Your task to perform on an android device: open app "Walmart Shopping & Grocery" Image 0: 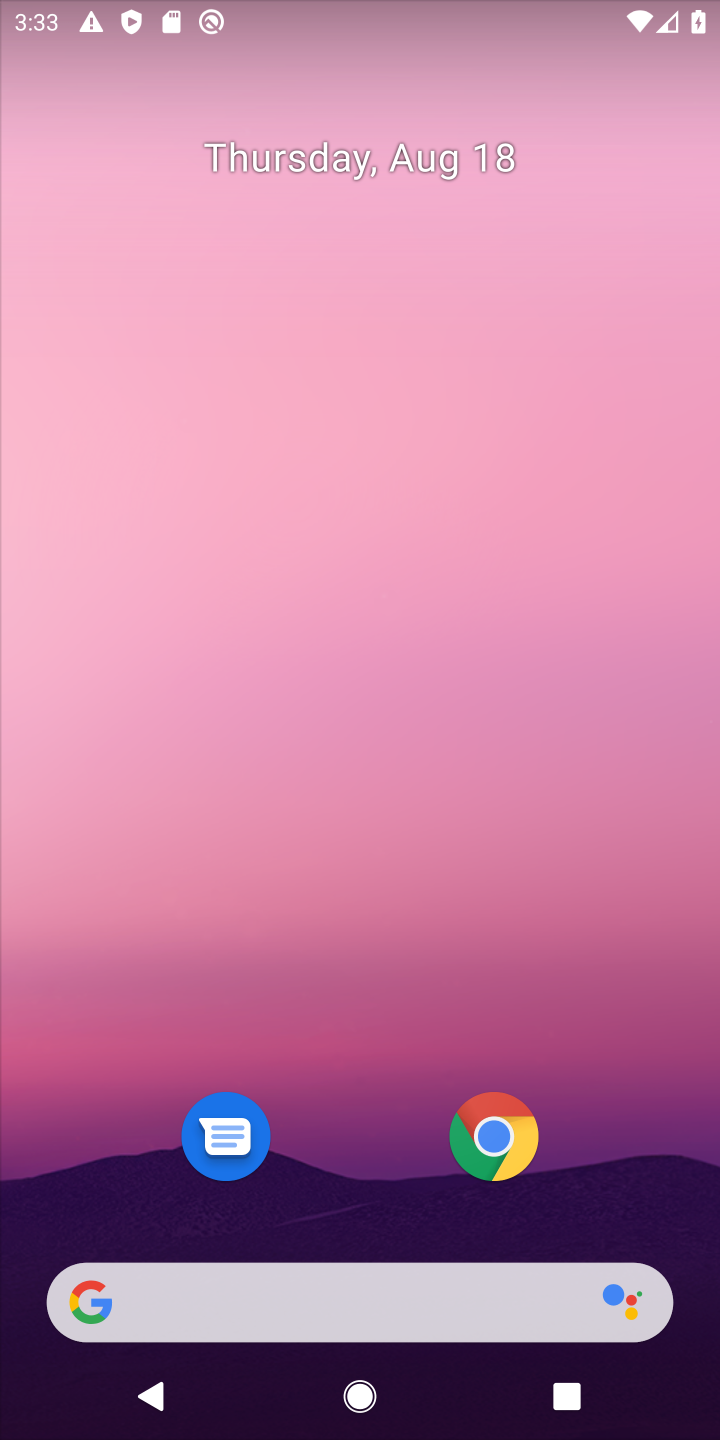
Step 0: drag from (336, 1225) to (485, 62)
Your task to perform on an android device: open app "Walmart Shopping & Grocery" Image 1: 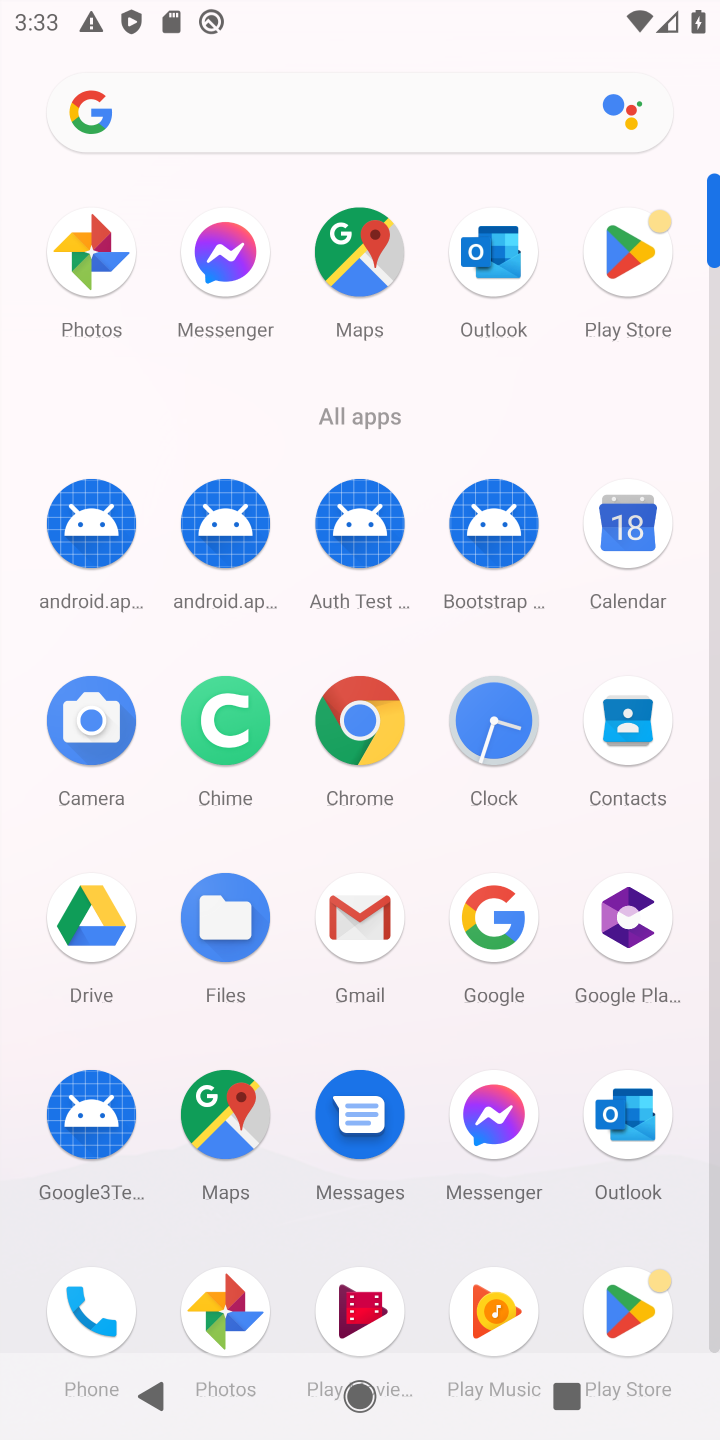
Step 1: click (628, 1301)
Your task to perform on an android device: open app "Walmart Shopping & Grocery" Image 2: 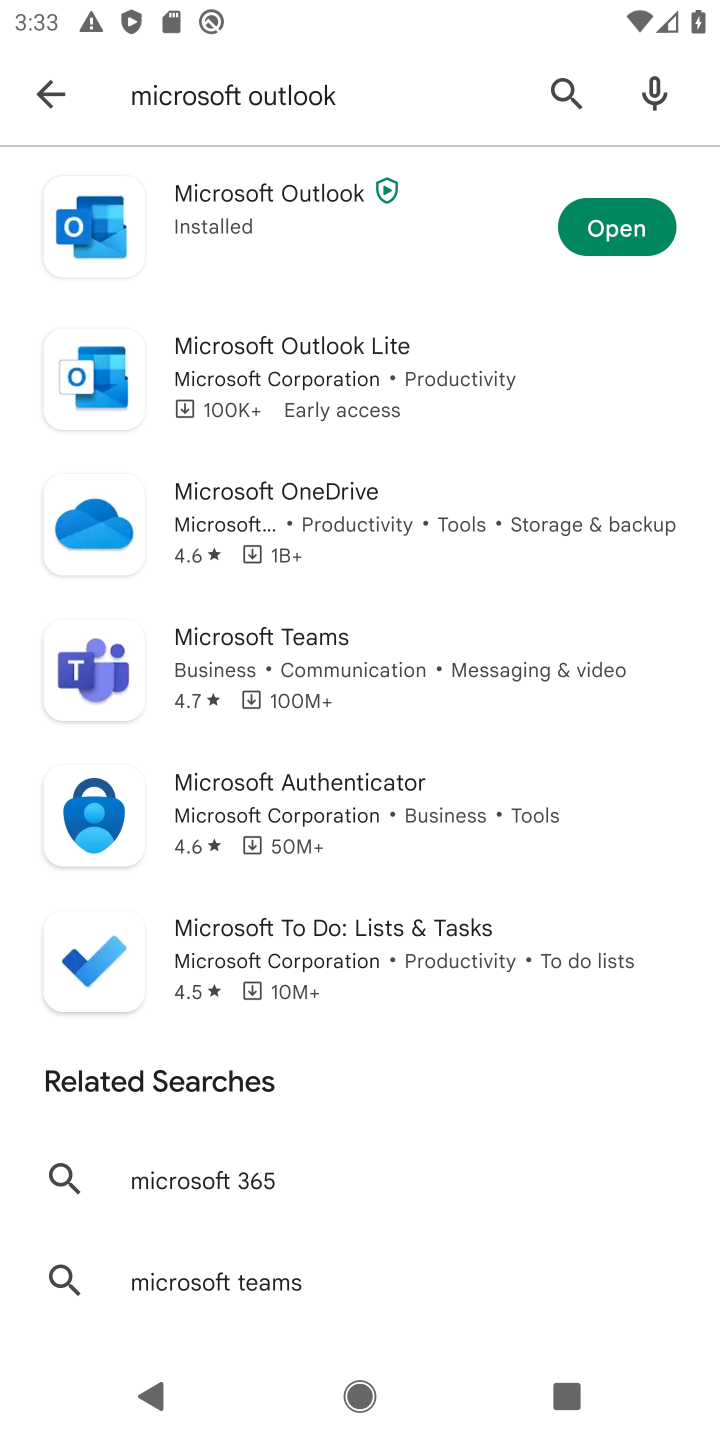
Step 2: click (301, 87)
Your task to perform on an android device: open app "Walmart Shopping & Grocery" Image 3: 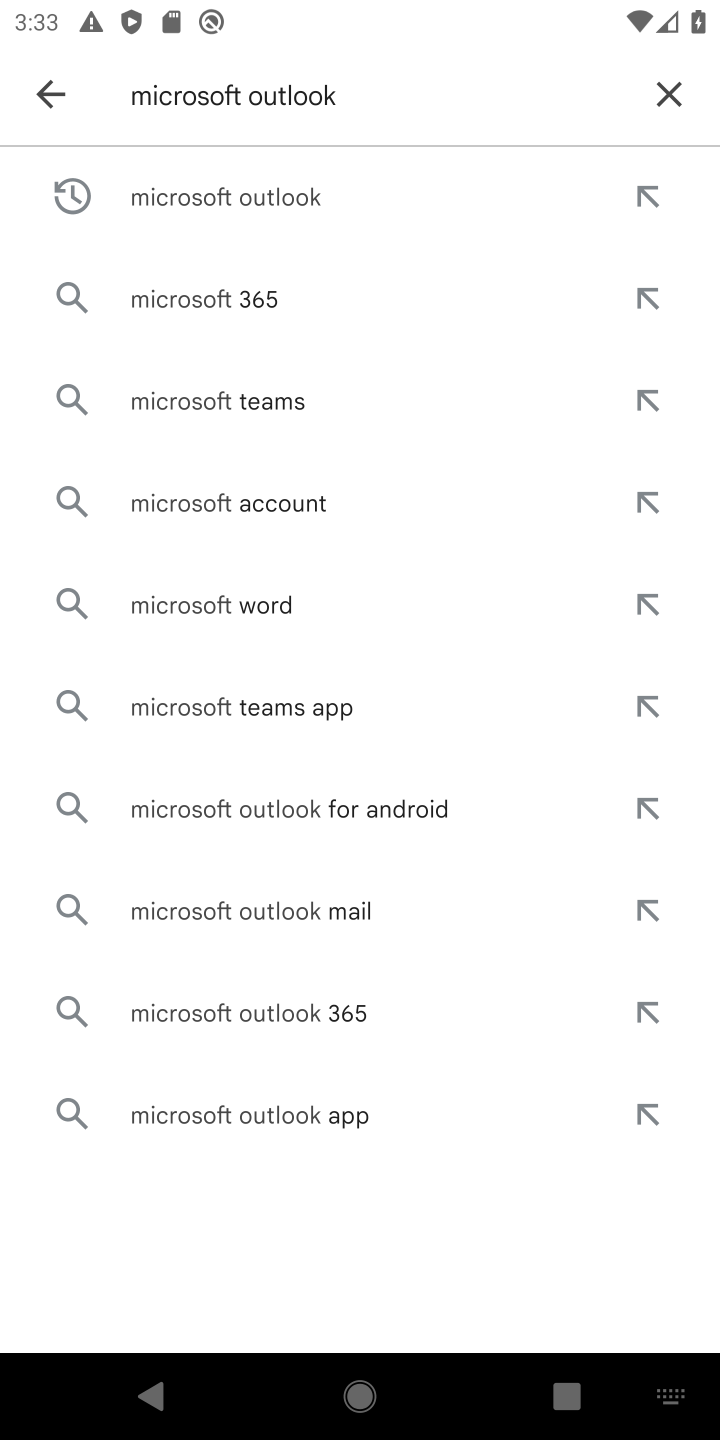
Step 3: click (677, 93)
Your task to perform on an android device: open app "Walmart Shopping & Grocery" Image 4: 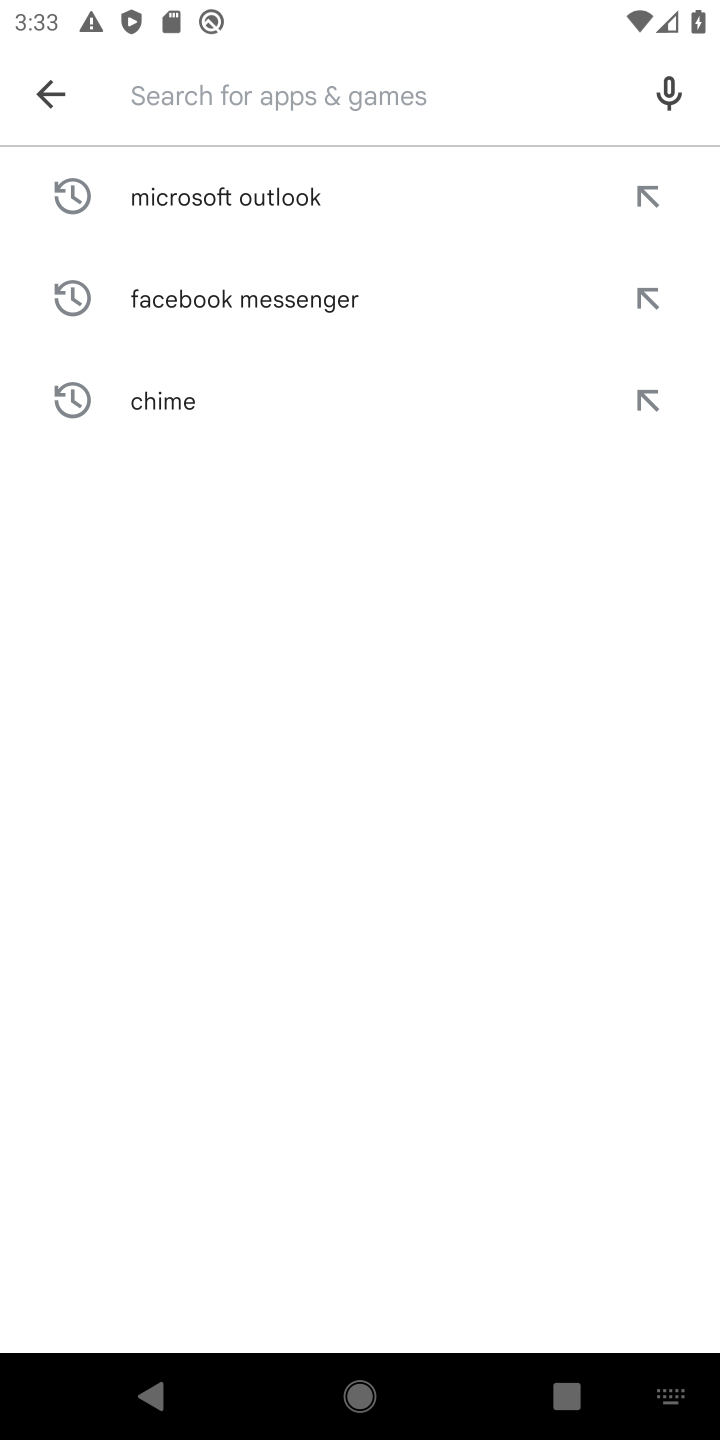
Step 4: type "walmart"
Your task to perform on an android device: open app "Walmart Shopping & Grocery" Image 5: 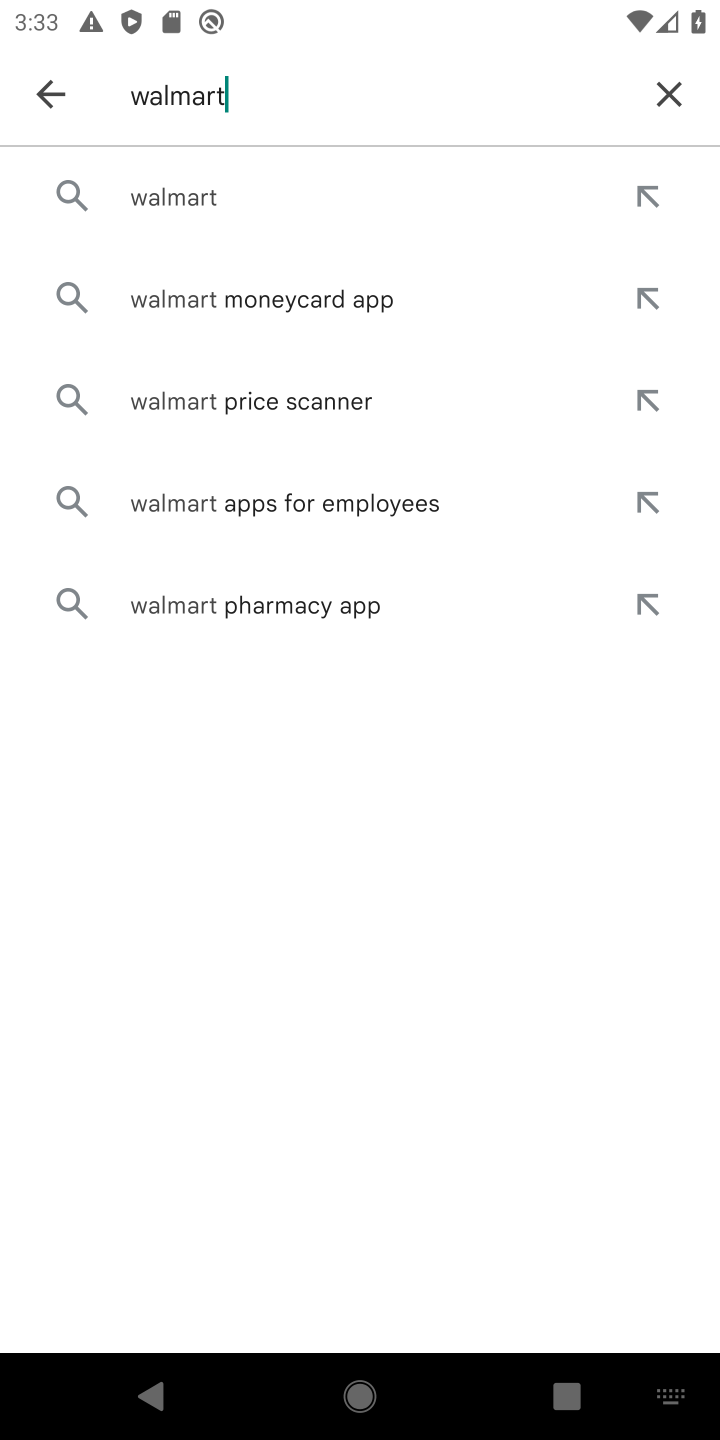
Step 5: click (291, 201)
Your task to perform on an android device: open app "Walmart Shopping & Grocery" Image 6: 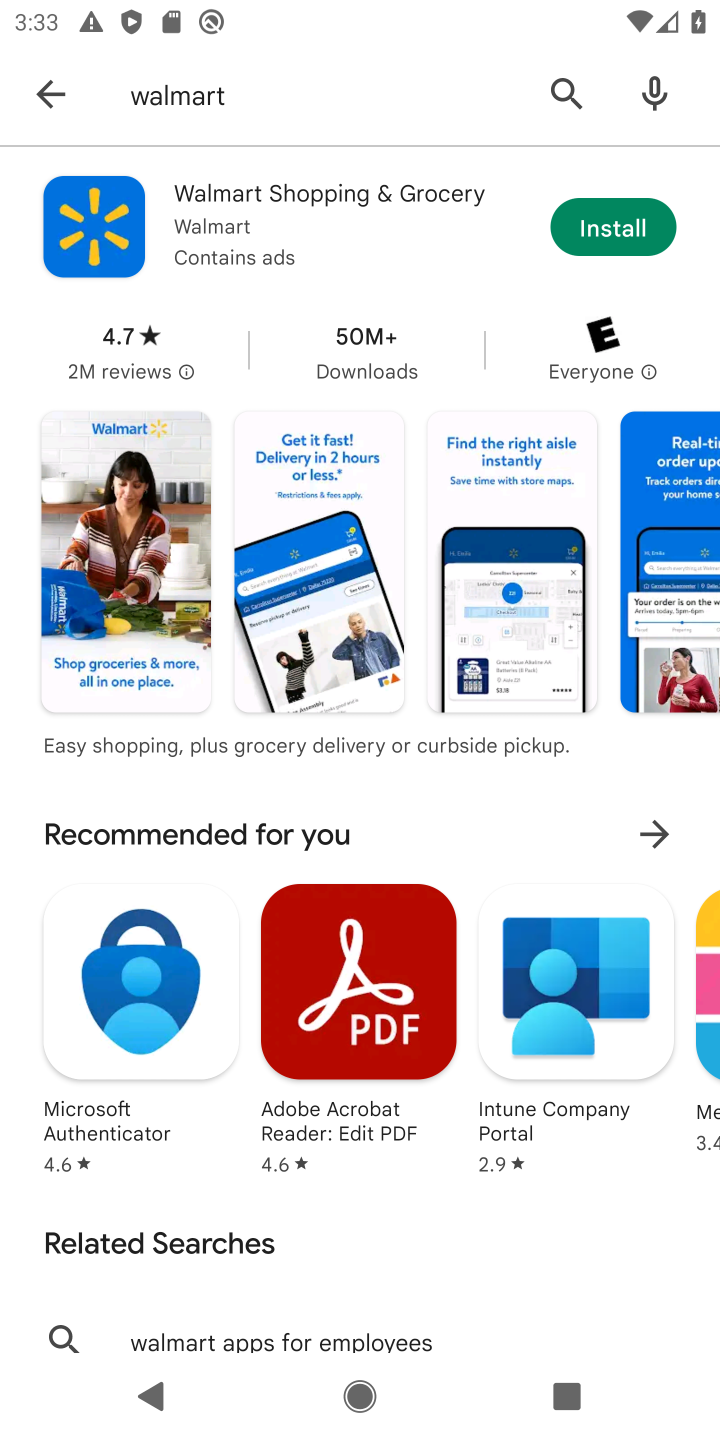
Step 6: task complete